Your task to perform on an android device: Open the stopwatch Image 0: 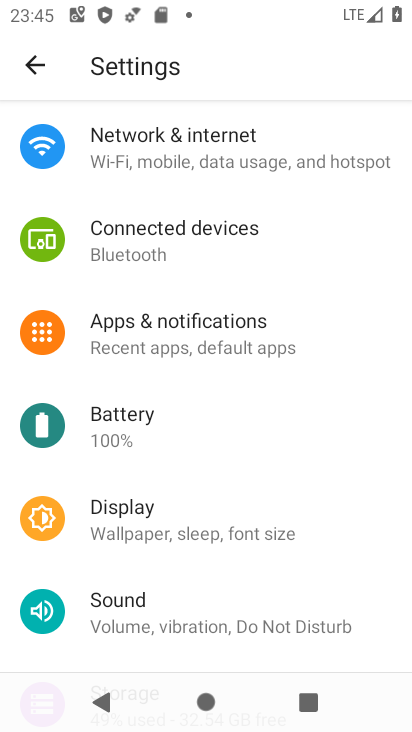
Step 0: press home button
Your task to perform on an android device: Open the stopwatch Image 1: 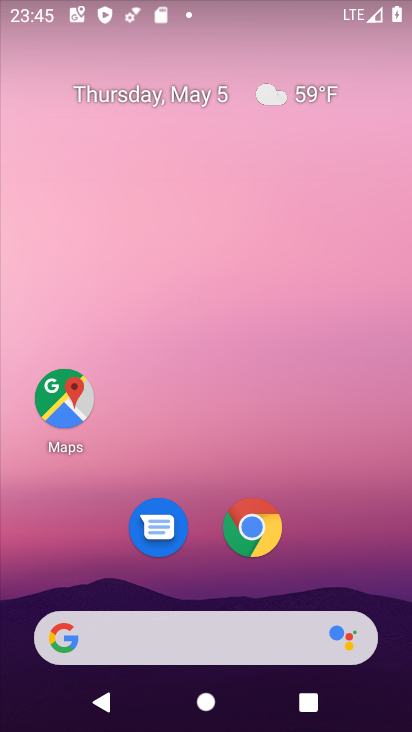
Step 1: drag from (197, 499) to (189, 114)
Your task to perform on an android device: Open the stopwatch Image 2: 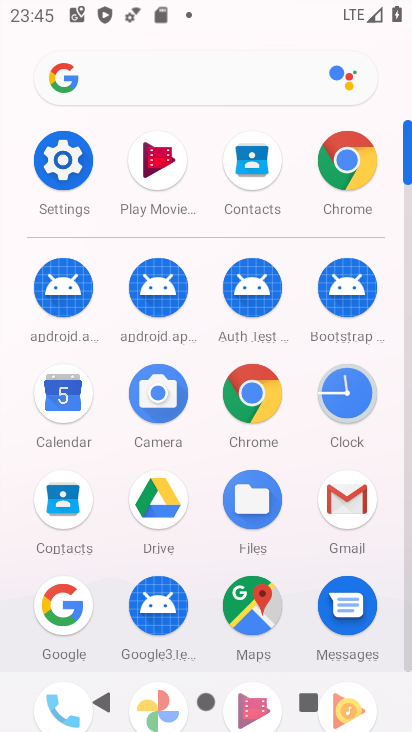
Step 2: click (342, 412)
Your task to perform on an android device: Open the stopwatch Image 3: 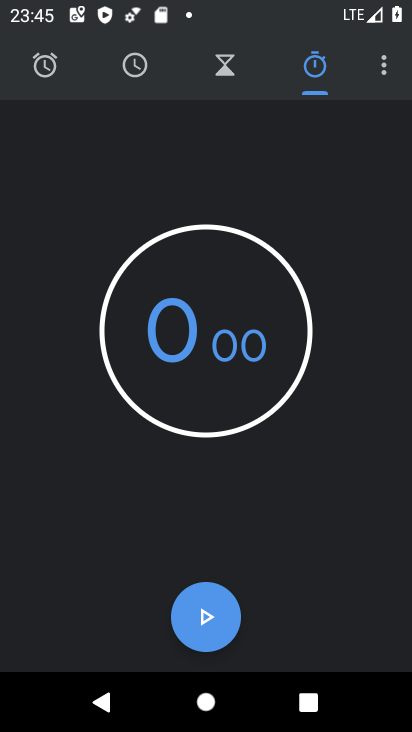
Step 3: click (203, 622)
Your task to perform on an android device: Open the stopwatch Image 4: 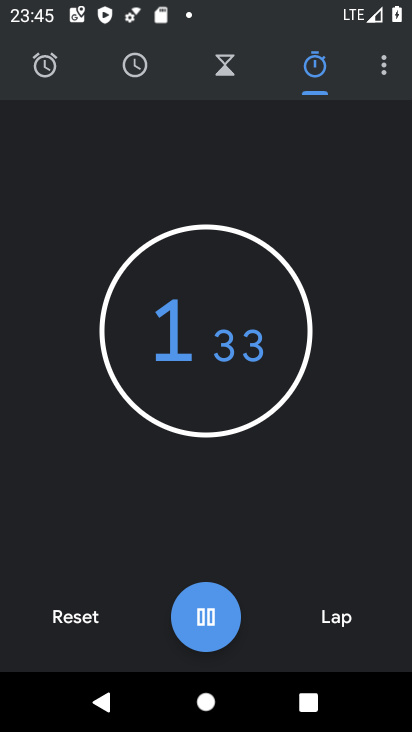
Step 4: task complete